Your task to perform on an android device: Open Google Maps Image 0: 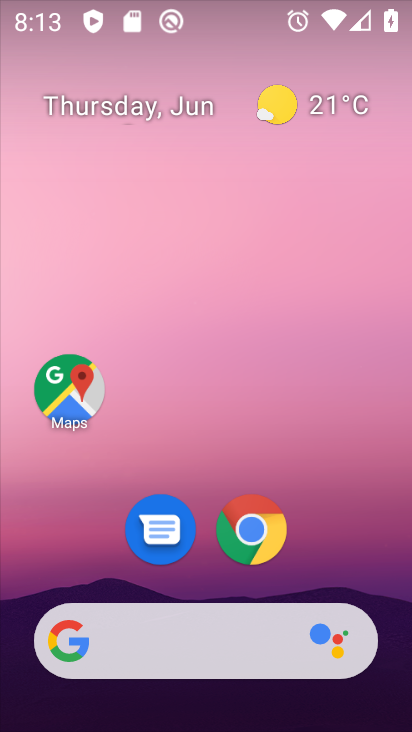
Step 0: click (59, 398)
Your task to perform on an android device: Open Google Maps Image 1: 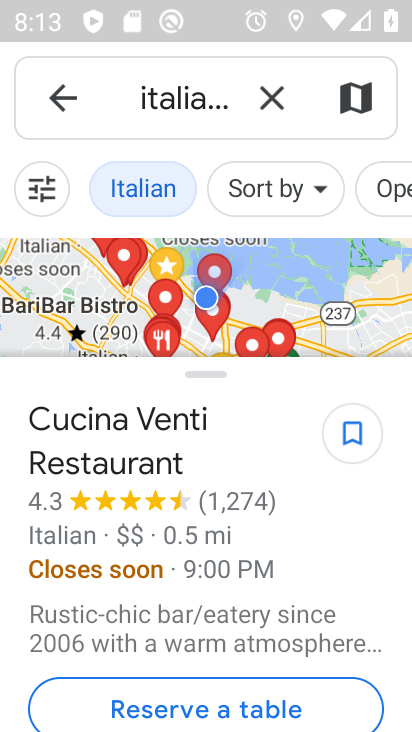
Step 1: click (56, 100)
Your task to perform on an android device: Open Google Maps Image 2: 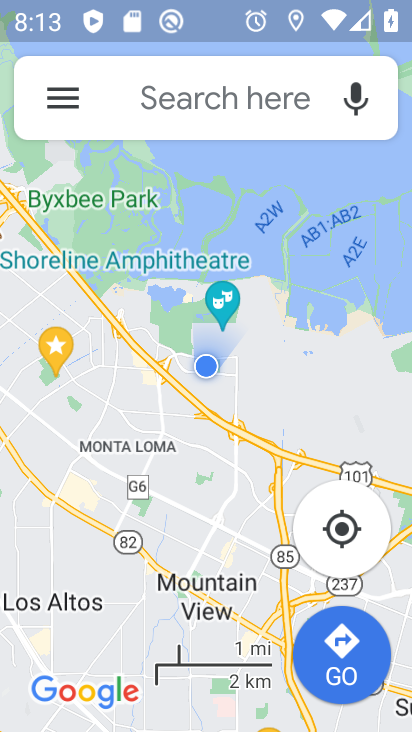
Step 2: task complete